Your task to perform on an android device: search for starred emails in the gmail app Image 0: 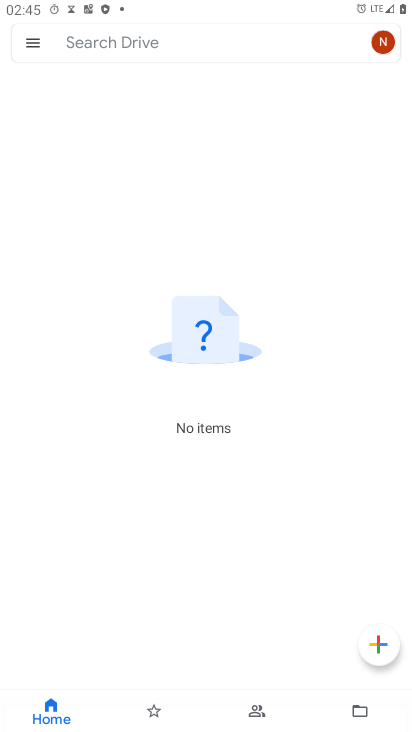
Step 0: press home button
Your task to perform on an android device: search for starred emails in the gmail app Image 1: 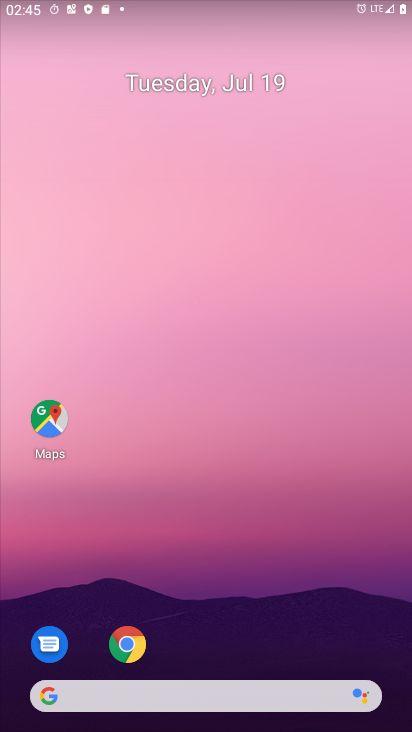
Step 1: drag from (214, 634) to (195, 150)
Your task to perform on an android device: search for starred emails in the gmail app Image 2: 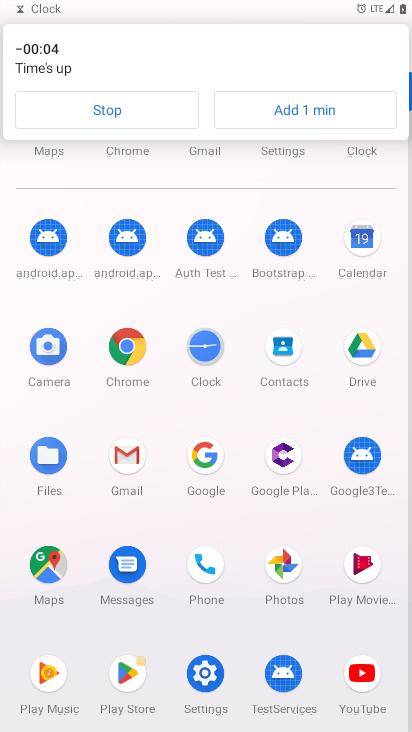
Step 2: click (127, 462)
Your task to perform on an android device: search for starred emails in the gmail app Image 3: 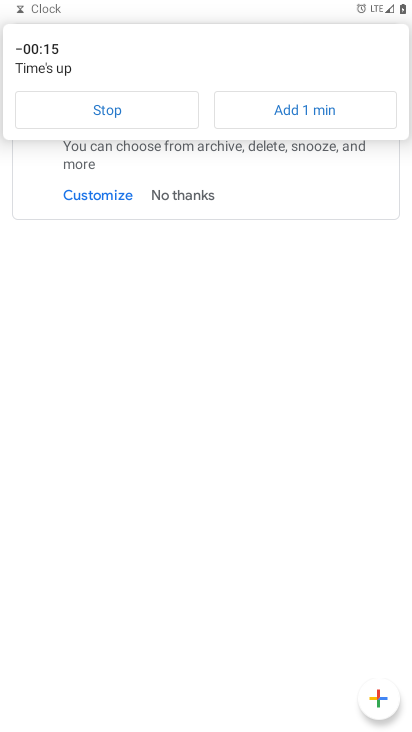
Step 3: task complete